Your task to perform on an android device: Go to Yahoo.com Image 0: 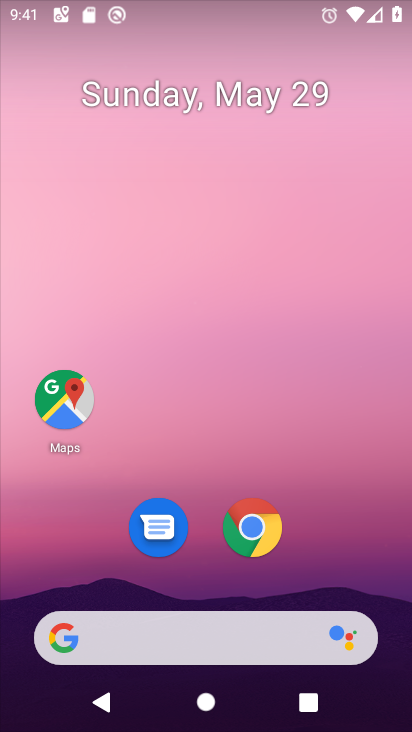
Step 0: press home button
Your task to perform on an android device: Go to Yahoo.com Image 1: 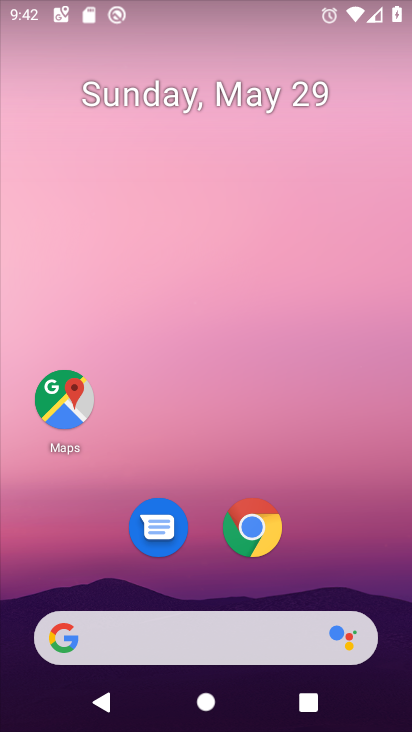
Step 1: click (250, 521)
Your task to perform on an android device: Go to Yahoo.com Image 2: 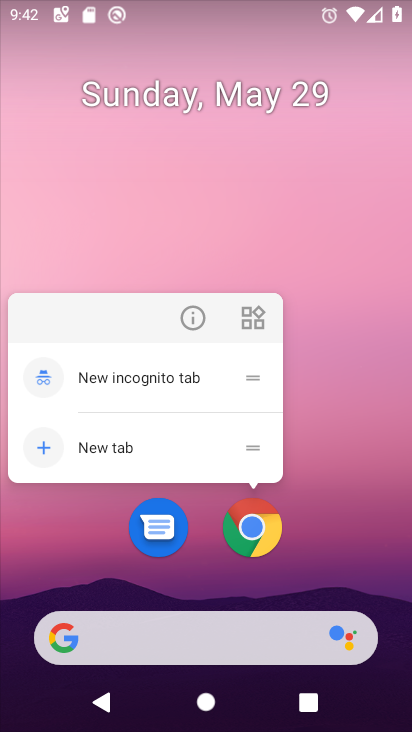
Step 2: click (250, 521)
Your task to perform on an android device: Go to Yahoo.com Image 3: 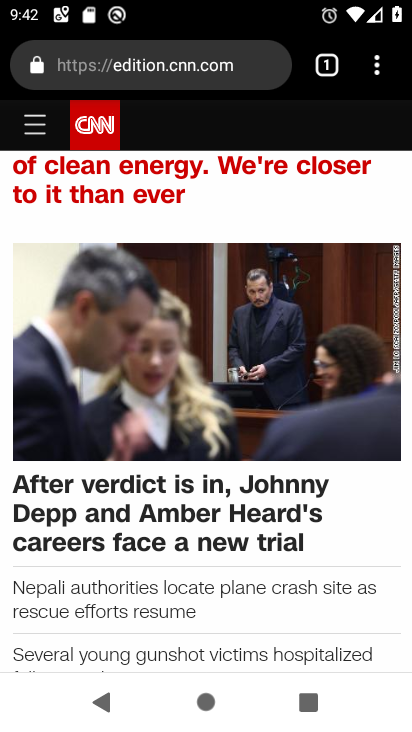
Step 3: click (326, 50)
Your task to perform on an android device: Go to Yahoo.com Image 4: 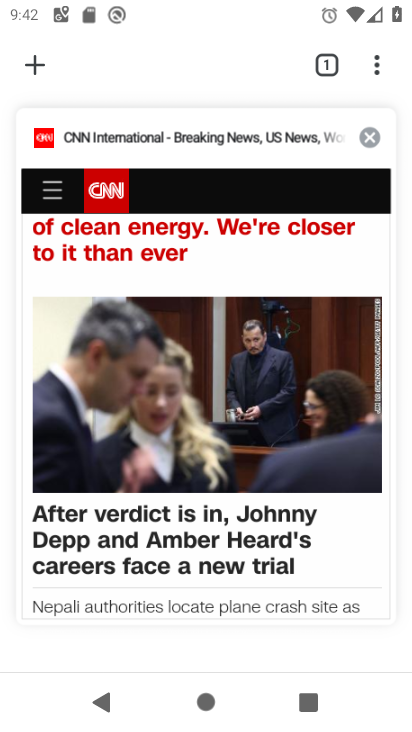
Step 4: click (367, 132)
Your task to perform on an android device: Go to Yahoo.com Image 5: 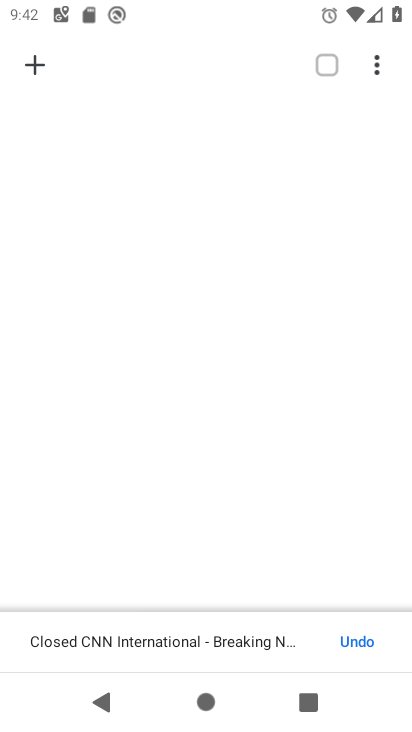
Step 5: click (39, 65)
Your task to perform on an android device: Go to Yahoo.com Image 6: 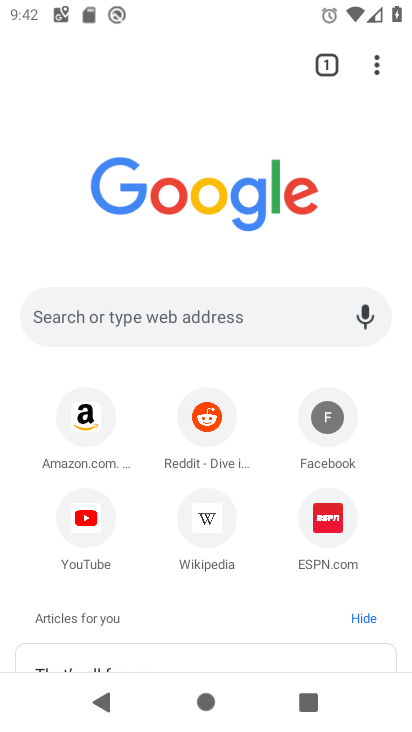
Step 6: click (156, 307)
Your task to perform on an android device: Go to Yahoo.com Image 7: 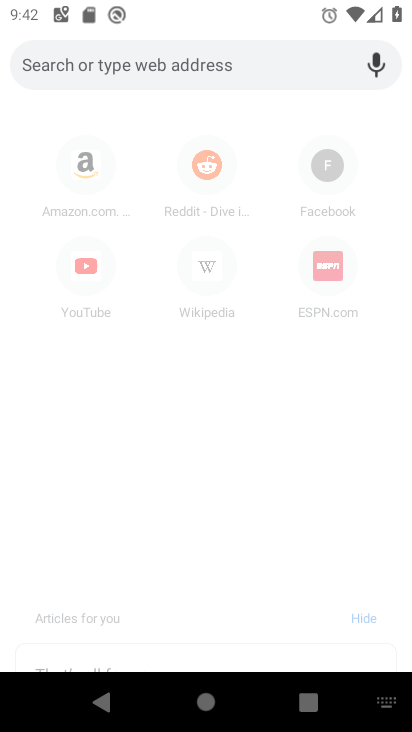
Step 7: type "yahoo.com"
Your task to perform on an android device: Go to Yahoo.com Image 8: 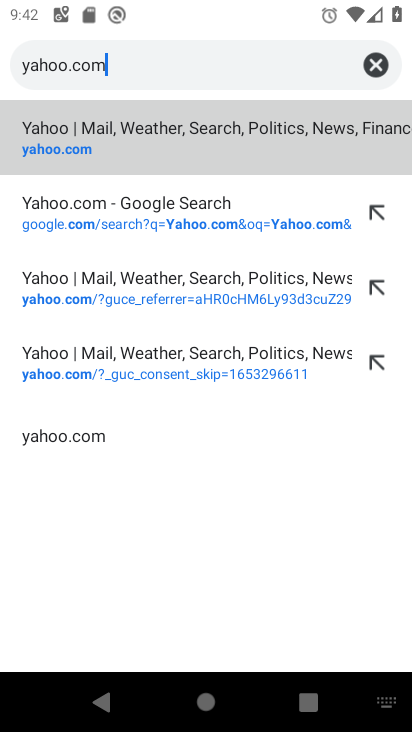
Step 8: click (110, 142)
Your task to perform on an android device: Go to Yahoo.com Image 9: 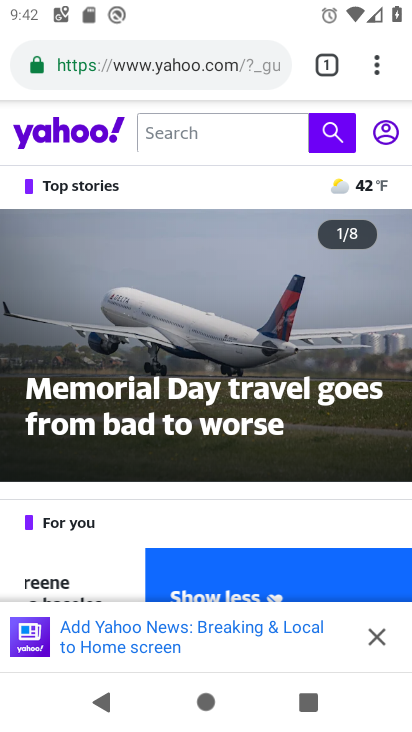
Step 9: task complete